Your task to perform on an android device: turn off notifications settings in the gmail app Image 0: 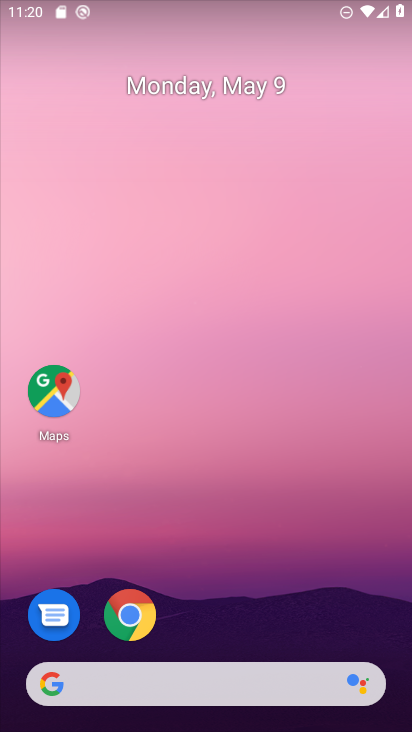
Step 0: press home button
Your task to perform on an android device: turn off notifications settings in the gmail app Image 1: 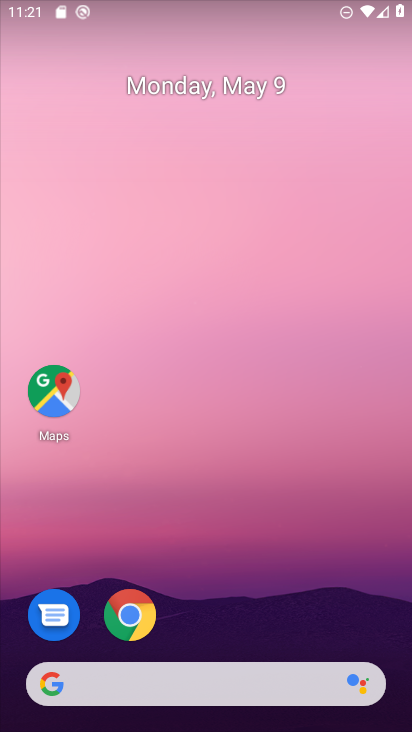
Step 1: drag from (270, 688) to (279, 307)
Your task to perform on an android device: turn off notifications settings in the gmail app Image 2: 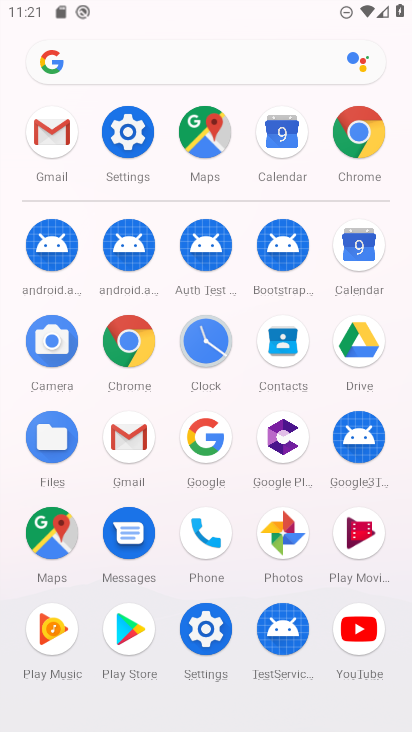
Step 2: click (61, 154)
Your task to perform on an android device: turn off notifications settings in the gmail app Image 3: 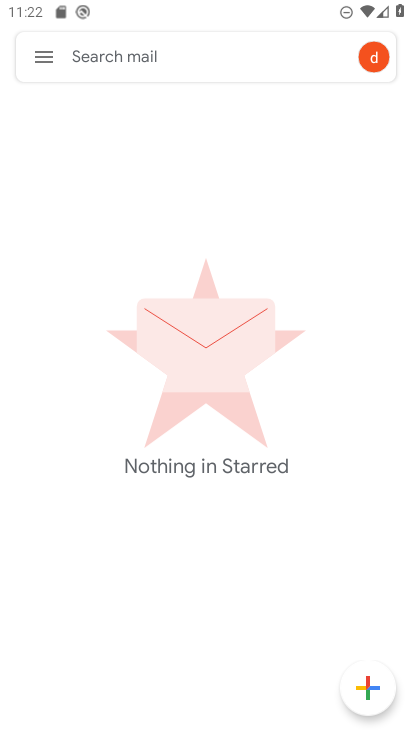
Step 3: click (57, 50)
Your task to perform on an android device: turn off notifications settings in the gmail app Image 4: 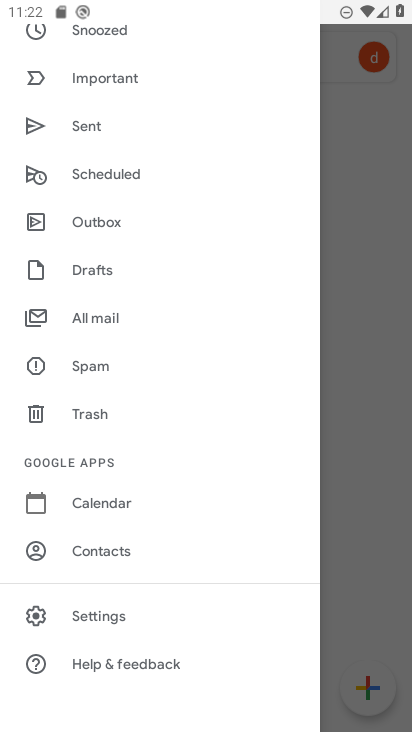
Step 4: click (116, 608)
Your task to perform on an android device: turn off notifications settings in the gmail app Image 5: 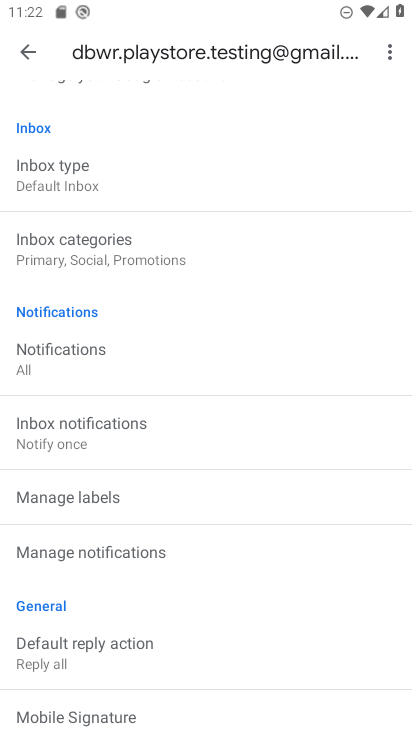
Step 5: click (72, 351)
Your task to perform on an android device: turn off notifications settings in the gmail app Image 6: 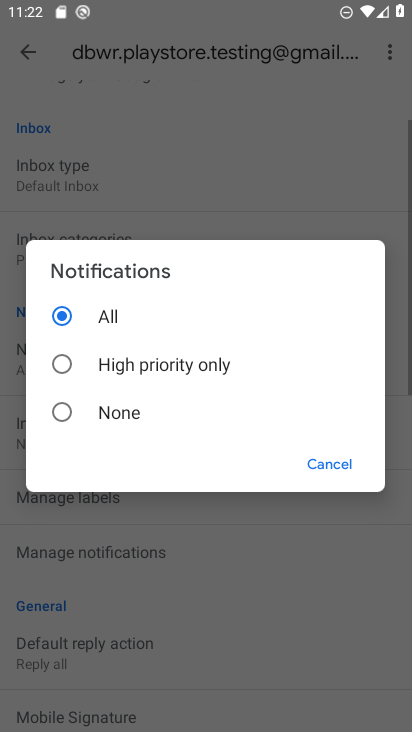
Step 6: click (120, 408)
Your task to perform on an android device: turn off notifications settings in the gmail app Image 7: 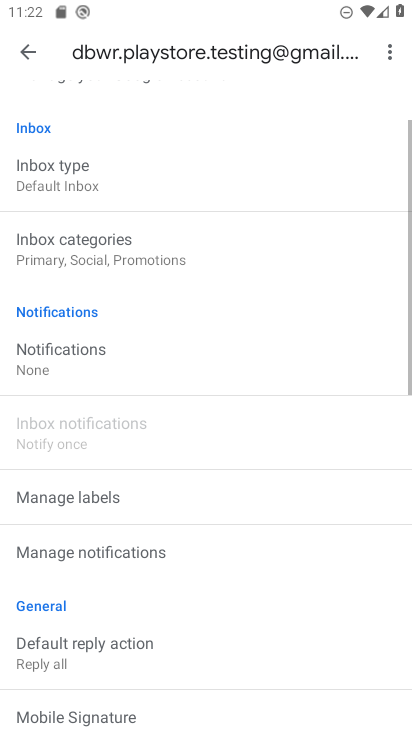
Step 7: task complete